Your task to perform on an android device: Play the last video I watched on Youtube Image 0: 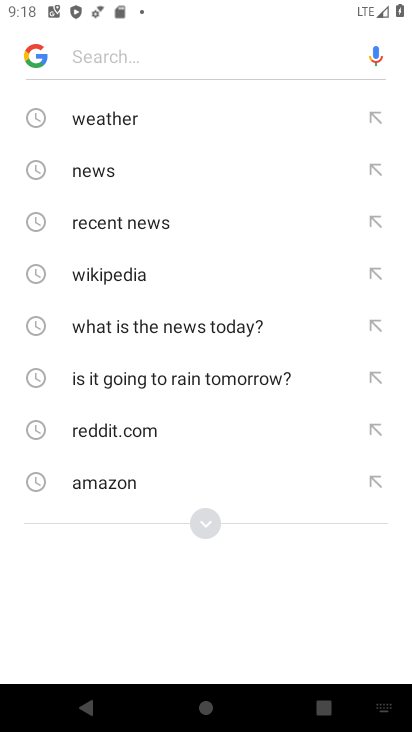
Step 0: press home button
Your task to perform on an android device: Play the last video I watched on Youtube Image 1: 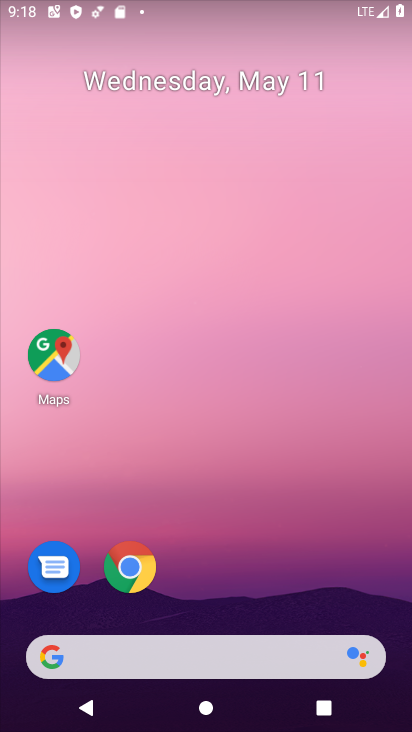
Step 1: drag from (269, 688) to (288, 161)
Your task to perform on an android device: Play the last video I watched on Youtube Image 2: 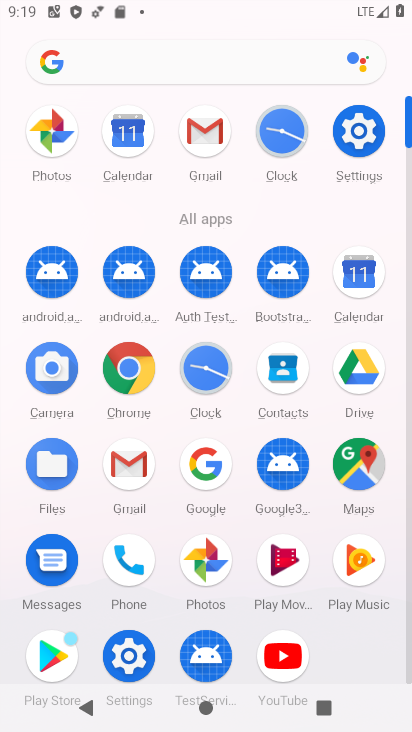
Step 2: click (285, 648)
Your task to perform on an android device: Play the last video I watched on Youtube Image 3: 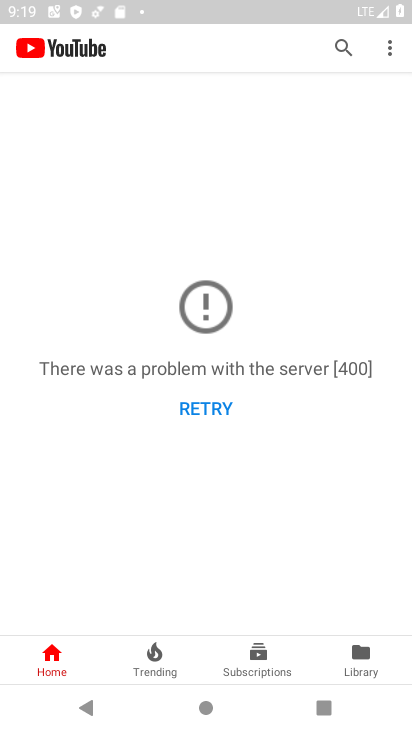
Step 3: click (356, 656)
Your task to perform on an android device: Play the last video I watched on Youtube Image 4: 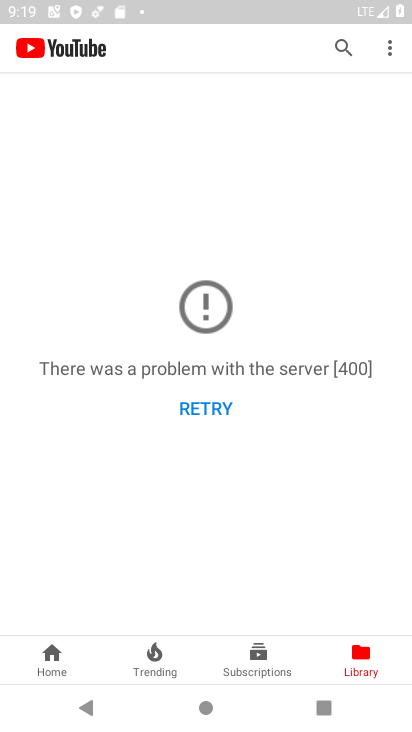
Step 4: task complete